Your task to perform on an android device: Open the Play Movies app and select the watchlist tab. Image 0: 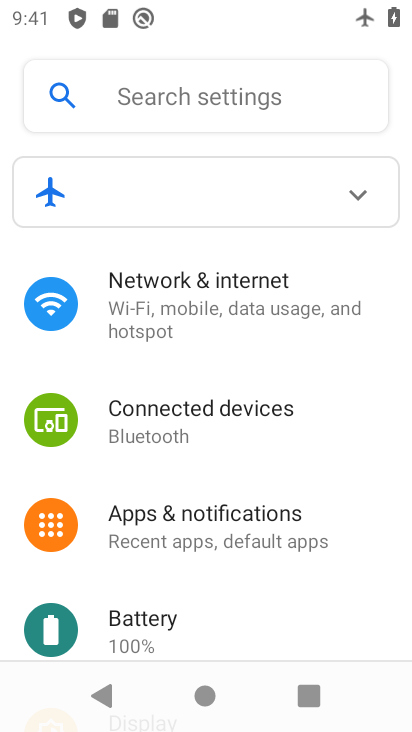
Step 0: press home button
Your task to perform on an android device: Open the Play Movies app and select the watchlist tab. Image 1: 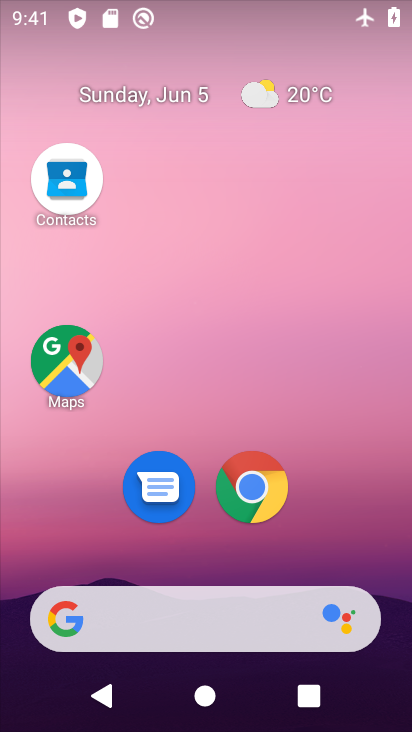
Step 1: drag from (237, 631) to (262, 132)
Your task to perform on an android device: Open the Play Movies app and select the watchlist tab. Image 2: 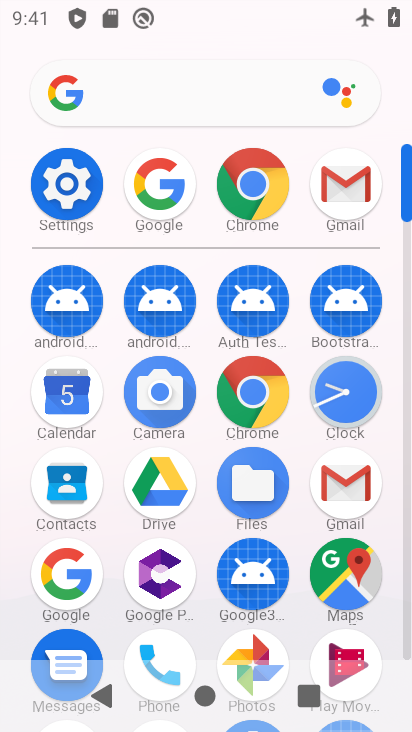
Step 2: drag from (232, 531) to (283, 142)
Your task to perform on an android device: Open the Play Movies app and select the watchlist tab. Image 3: 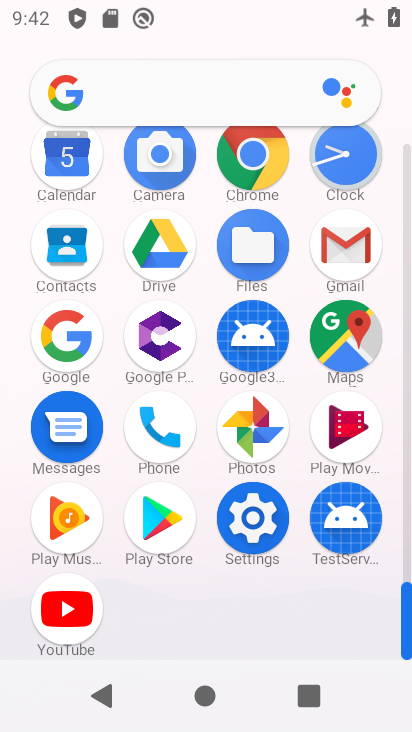
Step 3: click (342, 438)
Your task to perform on an android device: Open the Play Movies app and select the watchlist tab. Image 4: 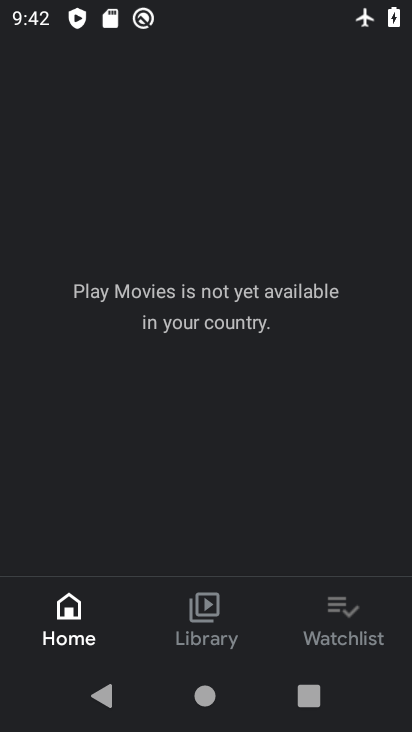
Step 4: click (356, 626)
Your task to perform on an android device: Open the Play Movies app and select the watchlist tab. Image 5: 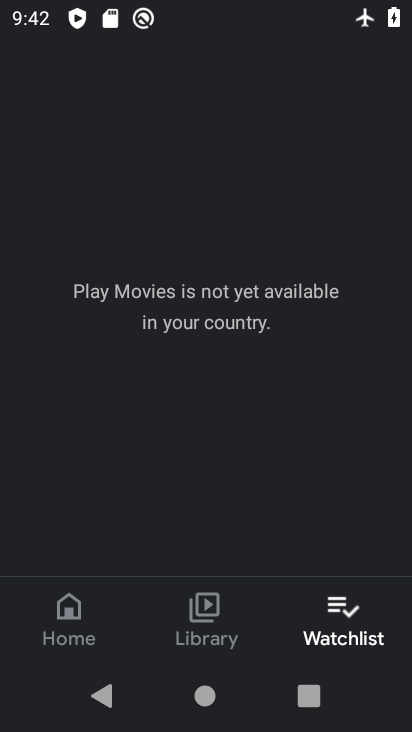
Step 5: task complete